Your task to perform on an android device: Go to Wikipedia Image 0: 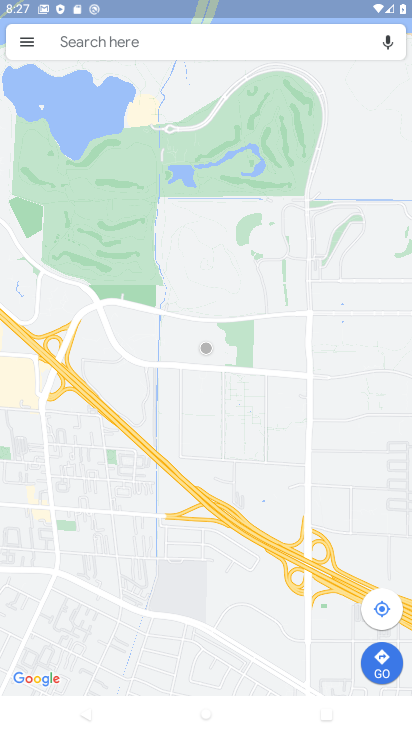
Step 0: press home button
Your task to perform on an android device: Go to Wikipedia Image 1: 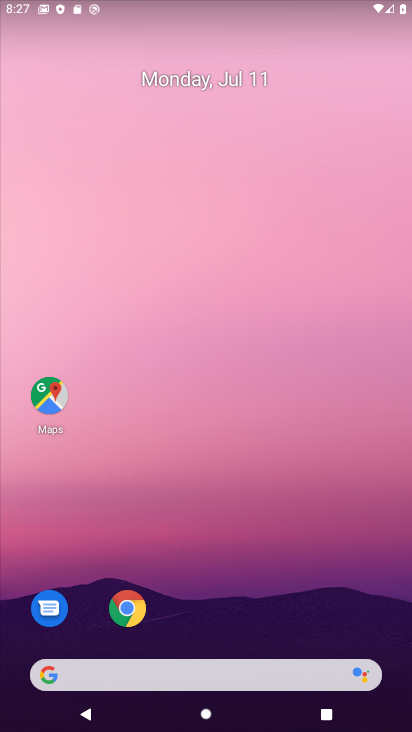
Step 1: click (133, 608)
Your task to perform on an android device: Go to Wikipedia Image 2: 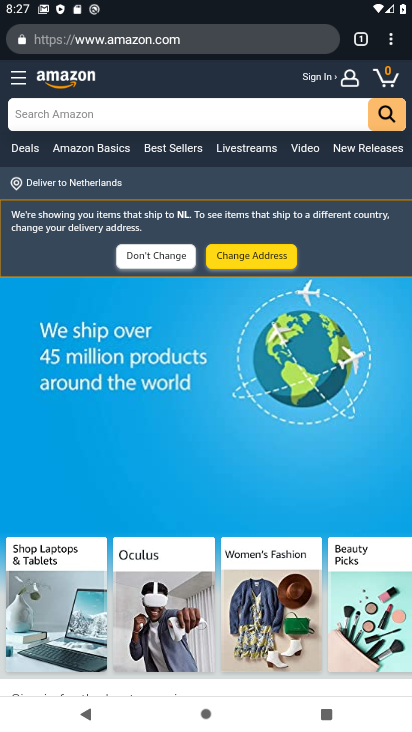
Step 2: click (364, 38)
Your task to perform on an android device: Go to Wikipedia Image 3: 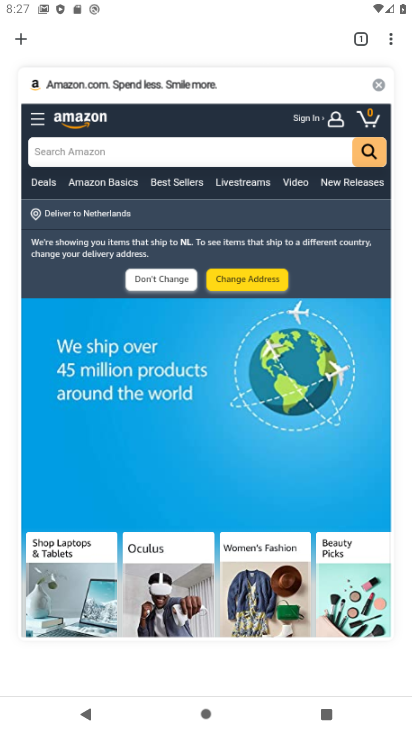
Step 3: click (382, 88)
Your task to perform on an android device: Go to Wikipedia Image 4: 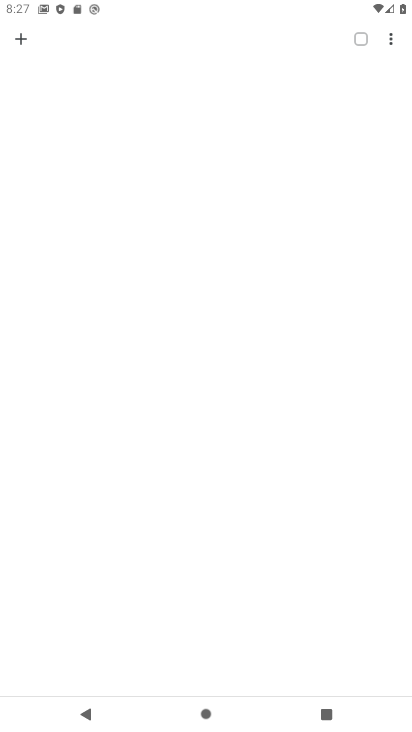
Step 4: click (23, 37)
Your task to perform on an android device: Go to Wikipedia Image 5: 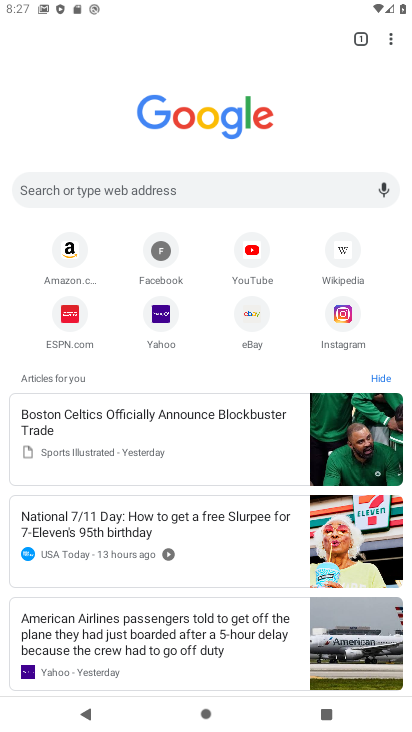
Step 5: click (340, 244)
Your task to perform on an android device: Go to Wikipedia Image 6: 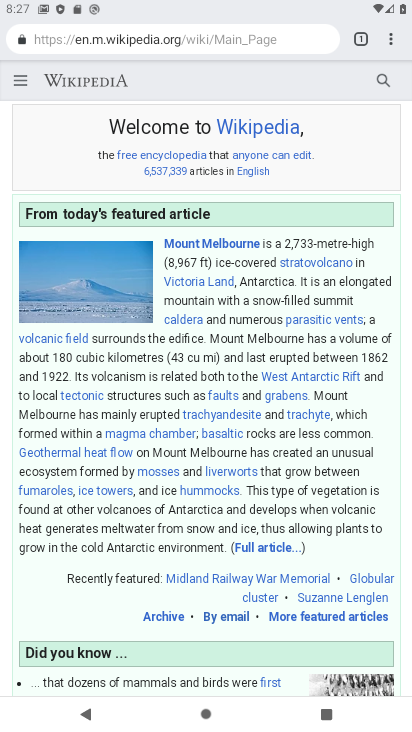
Step 6: task complete